Your task to perform on an android device: set the stopwatch Image 0: 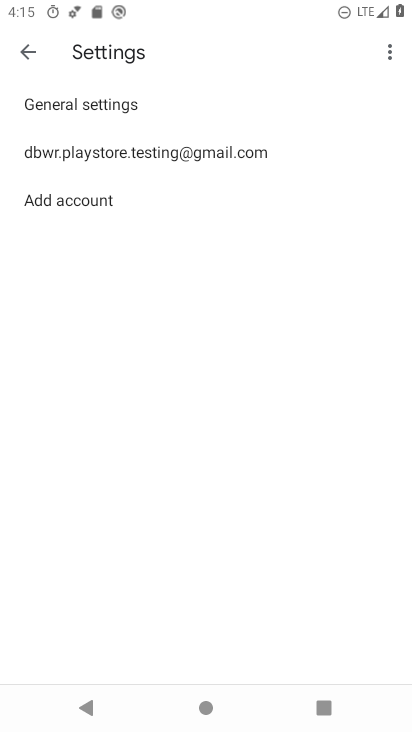
Step 0: press home button
Your task to perform on an android device: set the stopwatch Image 1: 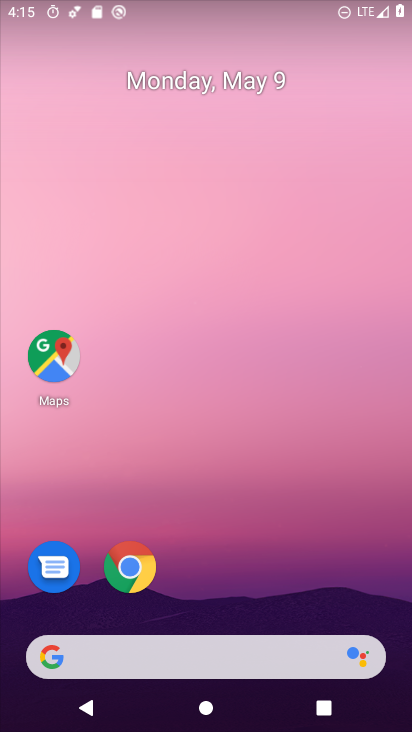
Step 1: drag from (287, 591) to (251, 120)
Your task to perform on an android device: set the stopwatch Image 2: 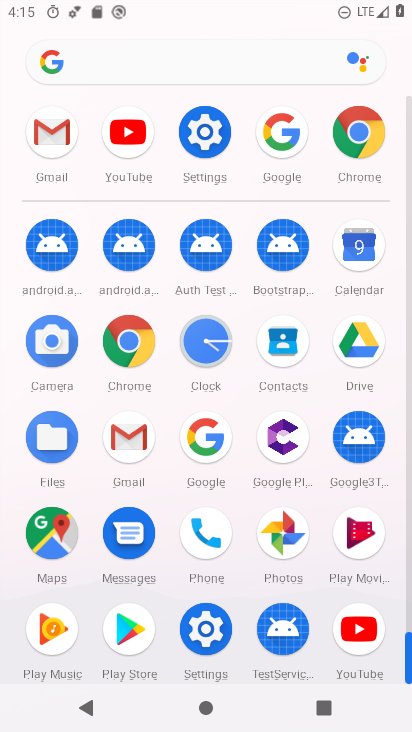
Step 2: click (211, 318)
Your task to perform on an android device: set the stopwatch Image 3: 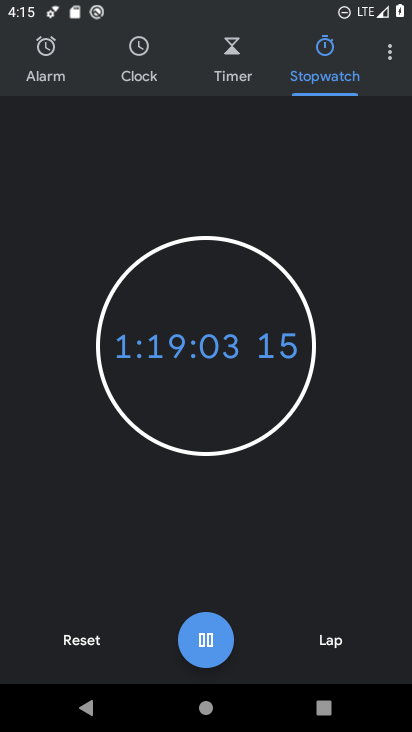
Step 3: click (92, 647)
Your task to perform on an android device: set the stopwatch Image 4: 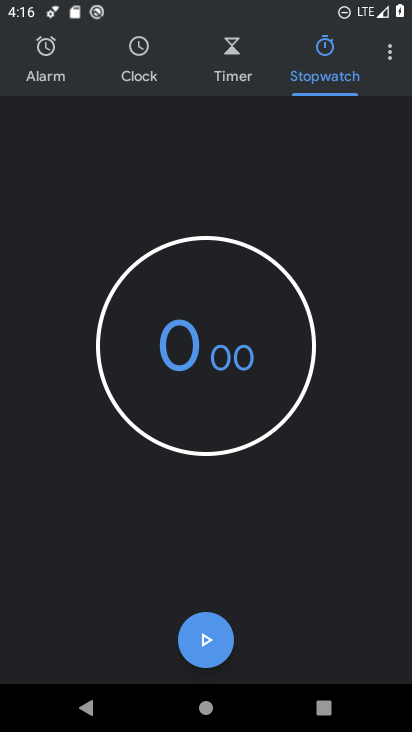
Step 4: click (214, 641)
Your task to perform on an android device: set the stopwatch Image 5: 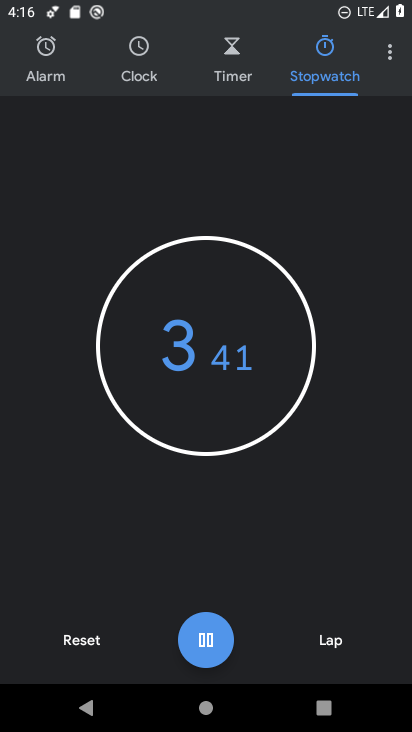
Step 5: task complete